Your task to perform on an android device: change notifications settings Image 0: 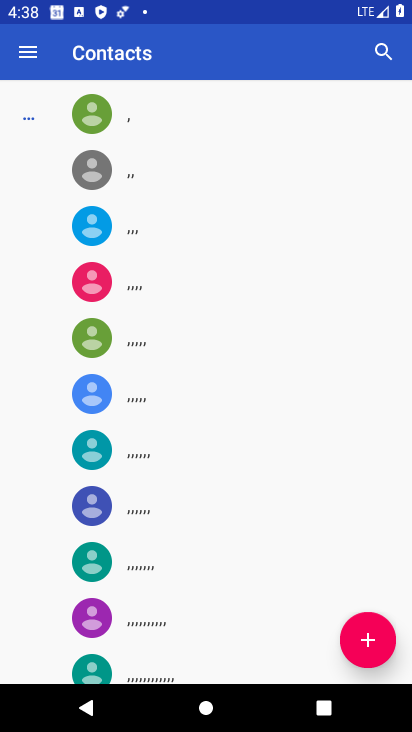
Step 0: press home button
Your task to perform on an android device: change notifications settings Image 1: 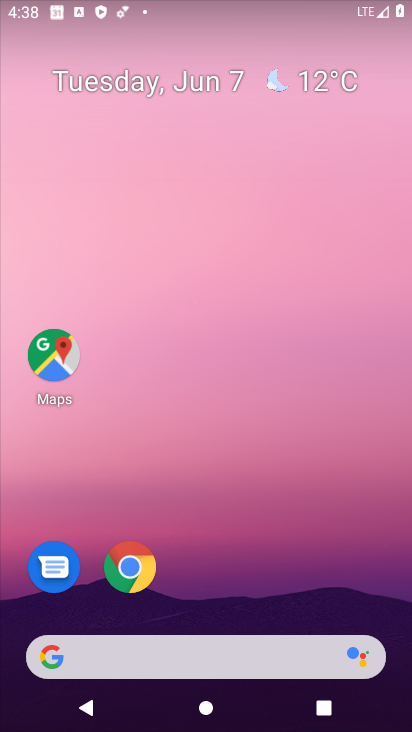
Step 1: drag from (234, 657) to (281, 103)
Your task to perform on an android device: change notifications settings Image 2: 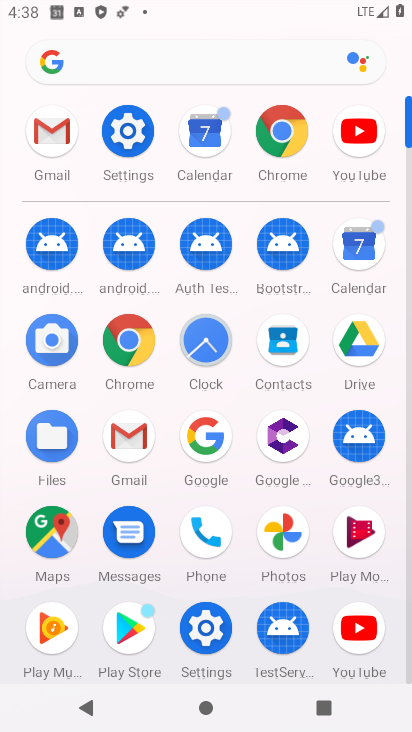
Step 2: click (111, 116)
Your task to perform on an android device: change notifications settings Image 3: 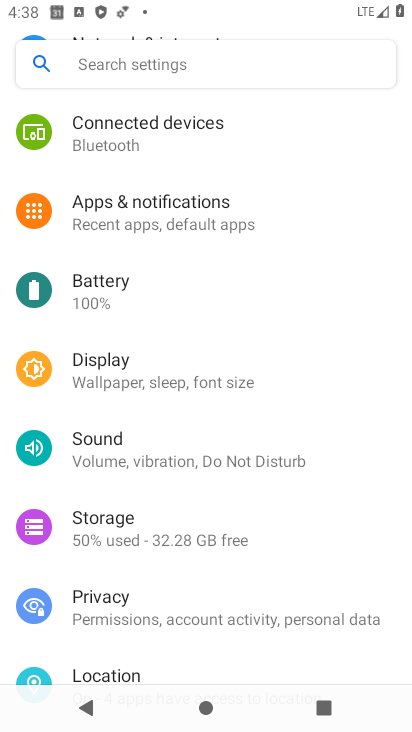
Step 3: click (185, 227)
Your task to perform on an android device: change notifications settings Image 4: 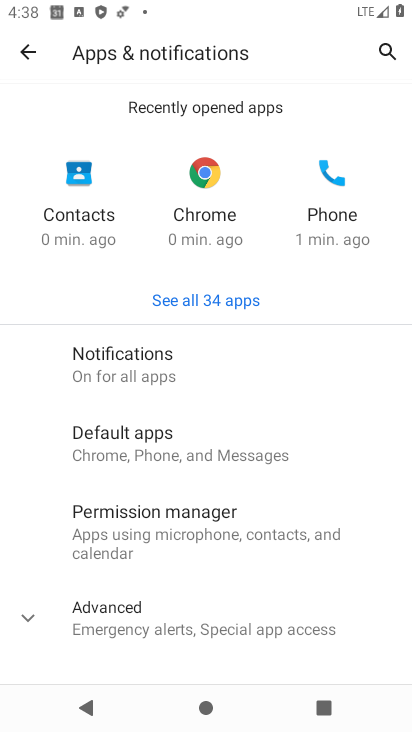
Step 4: click (178, 359)
Your task to perform on an android device: change notifications settings Image 5: 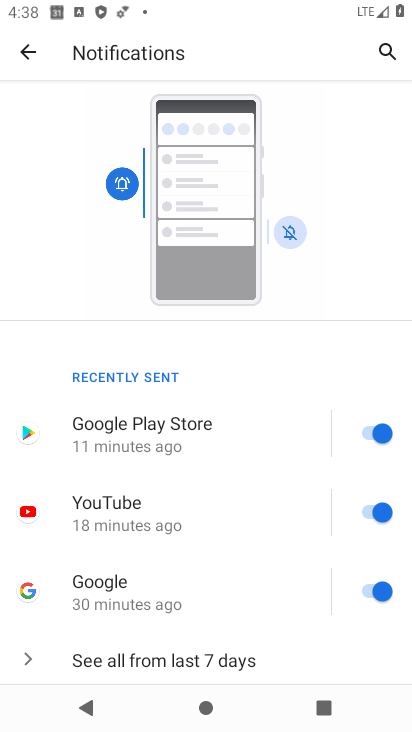
Step 5: task complete